Your task to perform on an android device: Check the settings for the Amazon Alexa app Image 0: 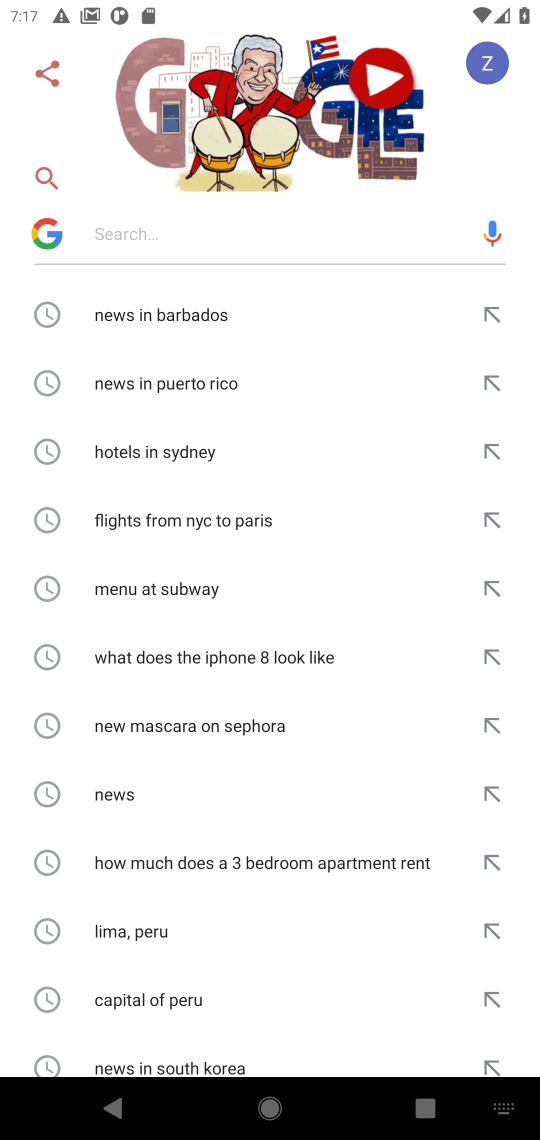
Step 0: press home button
Your task to perform on an android device: Check the settings for the Amazon Alexa app Image 1: 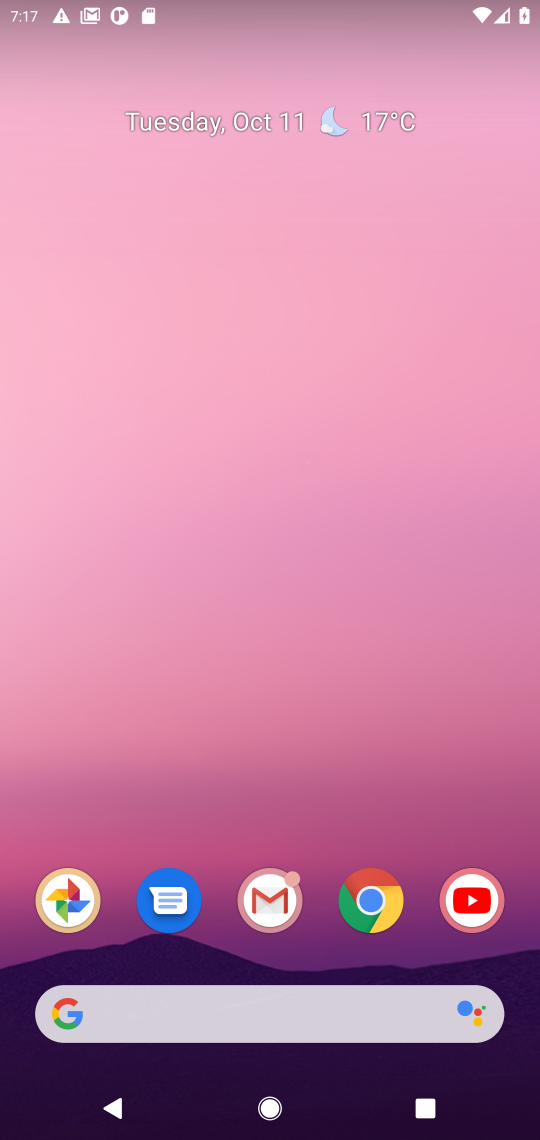
Step 1: click (367, 915)
Your task to perform on an android device: Check the settings for the Amazon Alexa app Image 2: 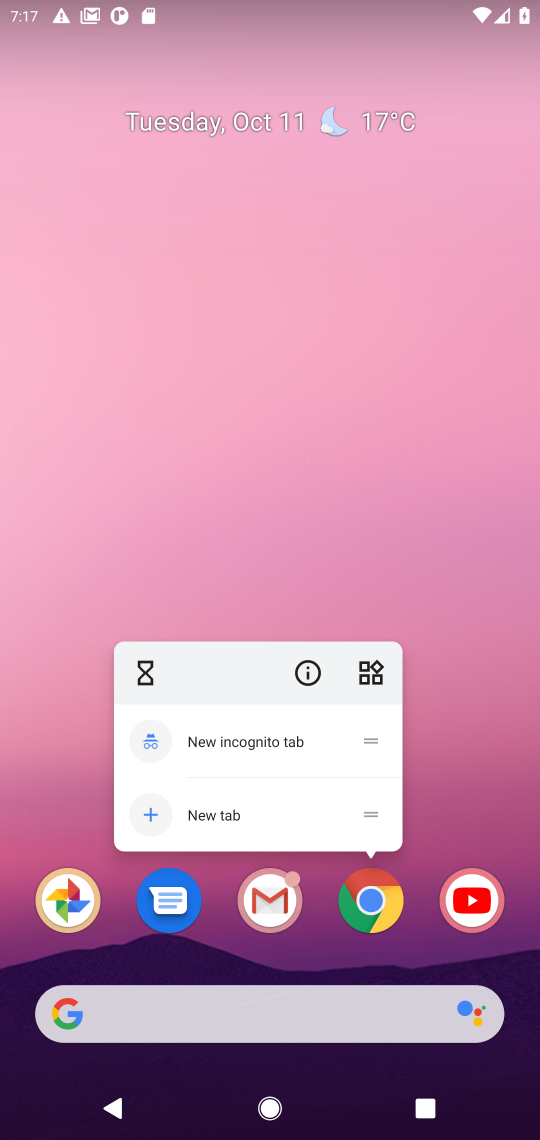
Step 2: click (363, 901)
Your task to perform on an android device: Check the settings for the Amazon Alexa app Image 3: 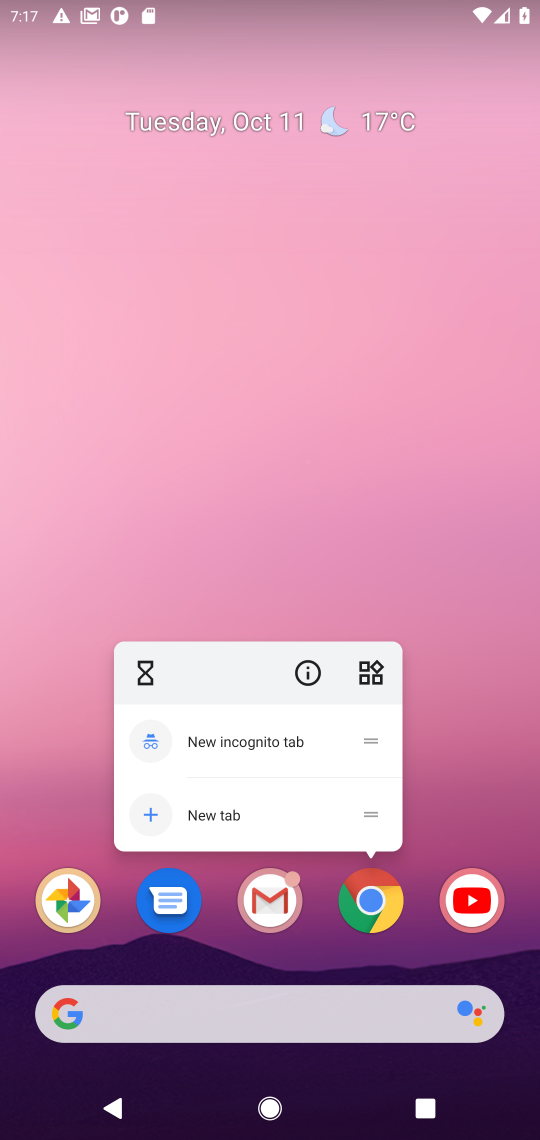
Step 3: task complete